Your task to perform on an android device: Open Chrome and go to the settings page Image 0: 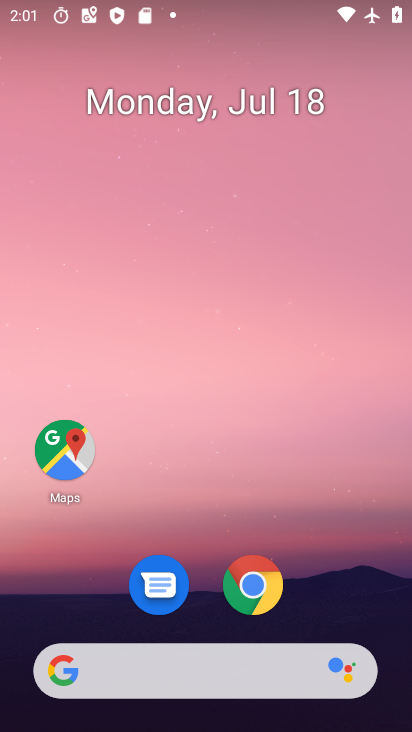
Step 0: press home button
Your task to perform on an android device: Open Chrome and go to the settings page Image 1: 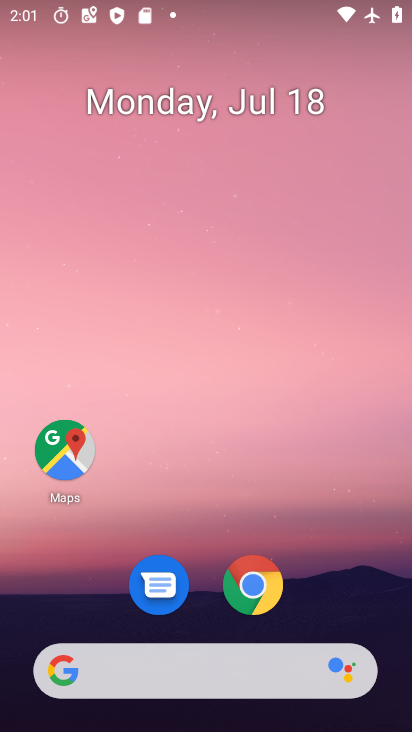
Step 1: click (261, 592)
Your task to perform on an android device: Open Chrome and go to the settings page Image 2: 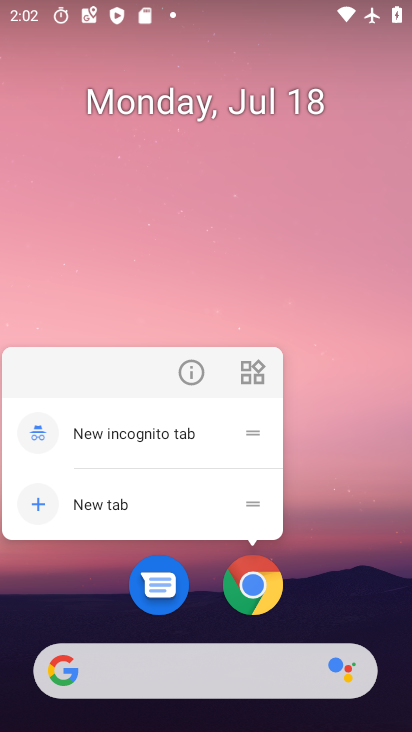
Step 2: click (250, 583)
Your task to perform on an android device: Open Chrome and go to the settings page Image 3: 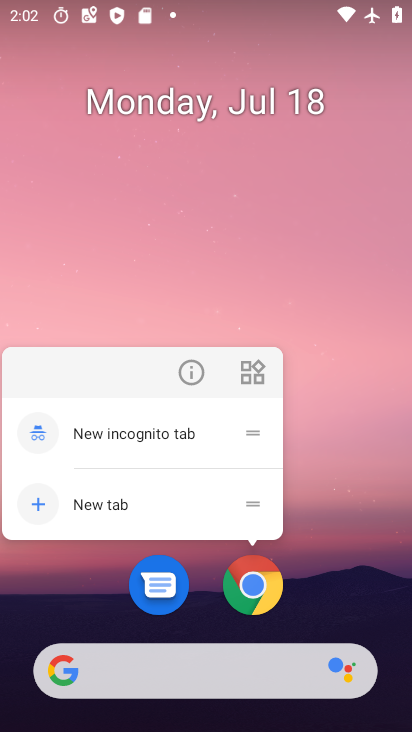
Step 3: click (250, 591)
Your task to perform on an android device: Open Chrome and go to the settings page Image 4: 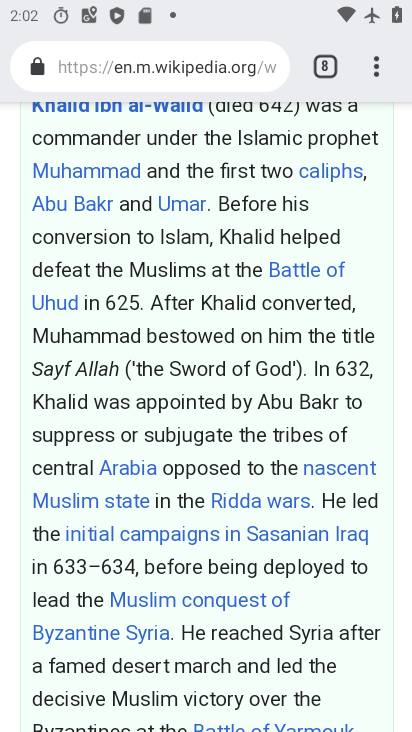
Step 4: task complete